Your task to perform on an android device: check out phone information Image 0: 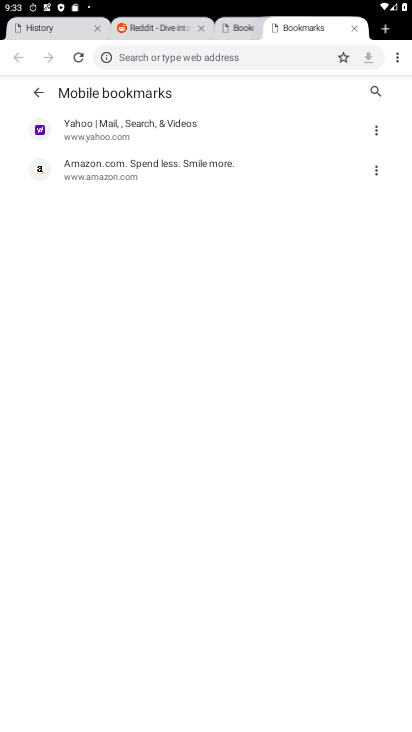
Step 0: press home button
Your task to perform on an android device: check out phone information Image 1: 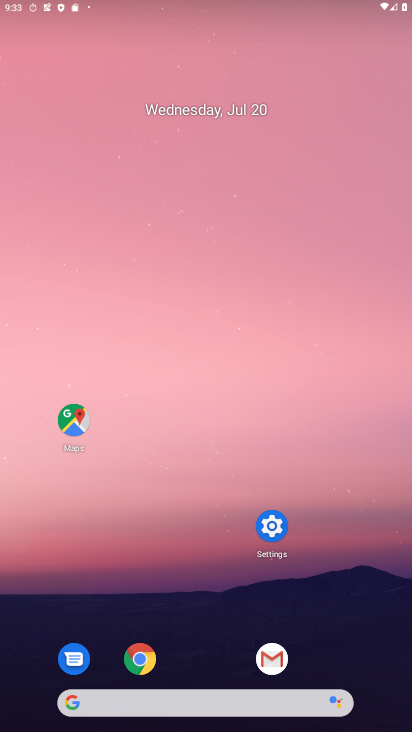
Step 1: drag from (239, 726) to (216, 312)
Your task to perform on an android device: check out phone information Image 2: 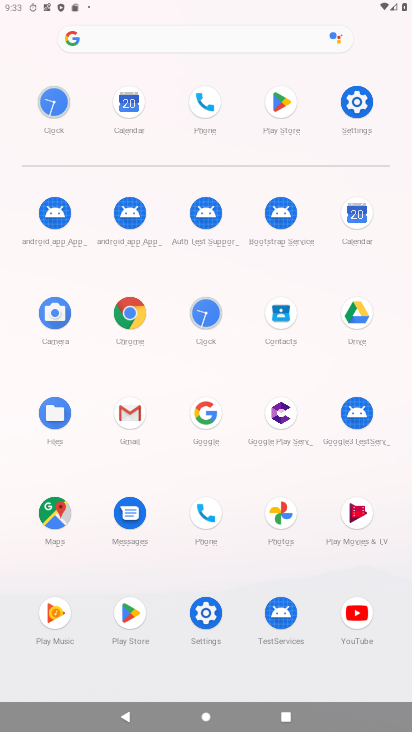
Step 2: click (357, 105)
Your task to perform on an android device: check out phone information Image 3: 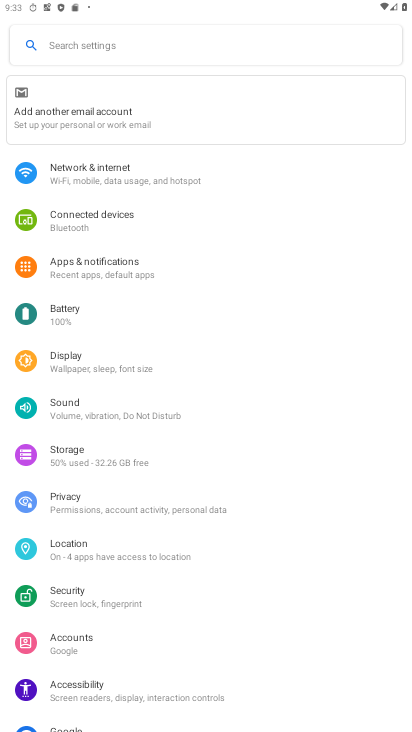
Step 3: click (153, 41)
Your task to perform on an android device: check out phone information Image 4: 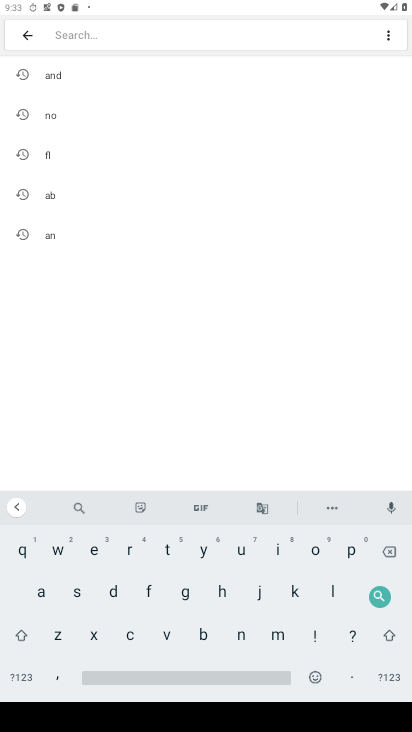
Step 4: click (77, 193)
Your task to perform on an android device: check out phone information Image 5: 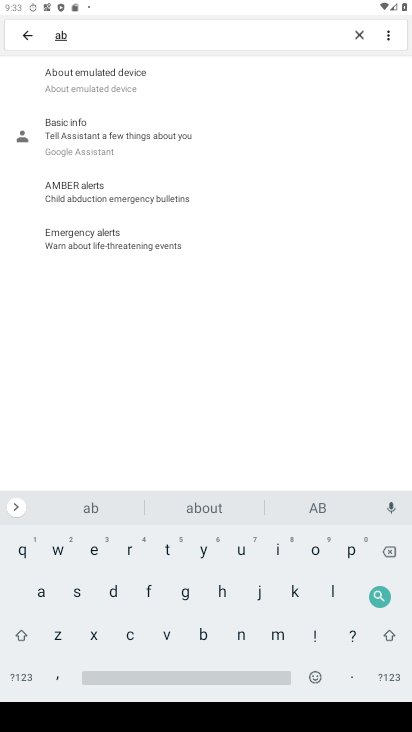
Step 5: click (126, 67)
Your task to perform on an android device: check out phone information Image 6: 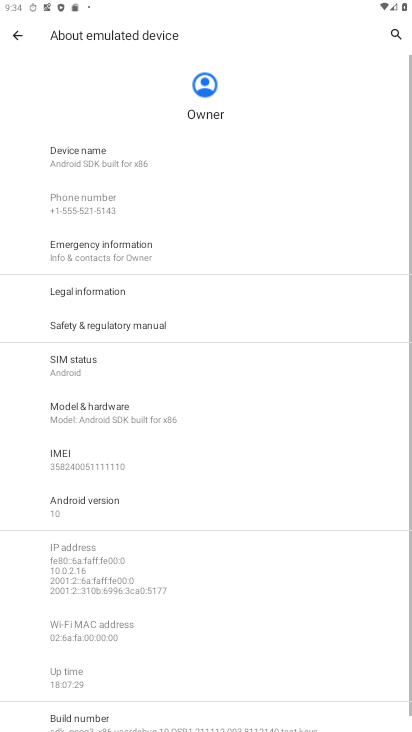
Step 6: task complete